Your task to perform on an android device: empty trash in google photos Image 0: 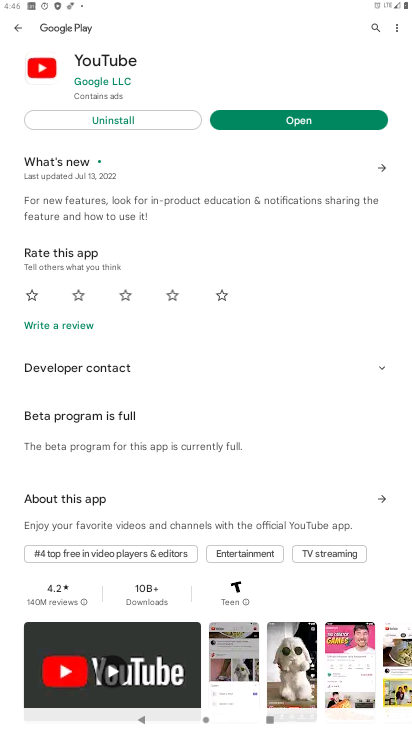
Step 0: press home button
Your task to perform on an android device: empty trash in google photos Image 1: 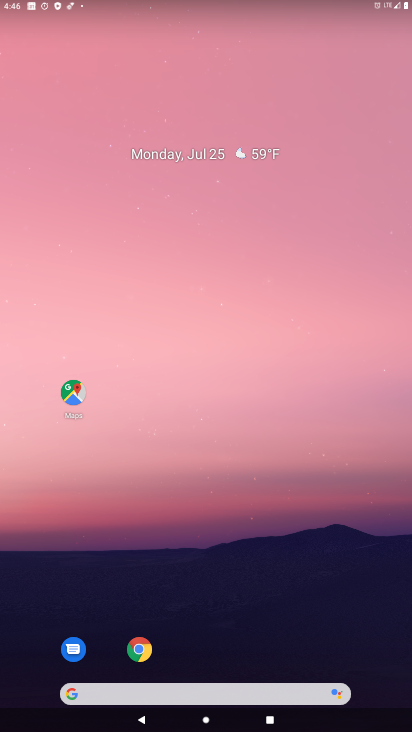
Step 1: drag from (256, 662) to (218, 3)
Your task to perform on an android device: empty trash in google photos Image 2: 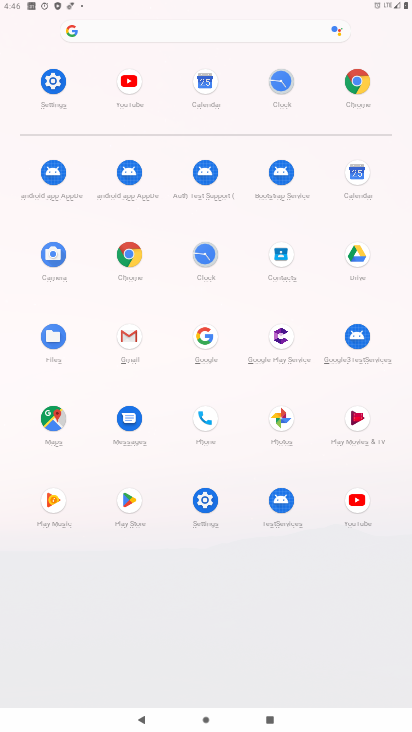
Step 2: click (285, 426)
Your task to perform on an android device: empty trash in google photos Image 3: 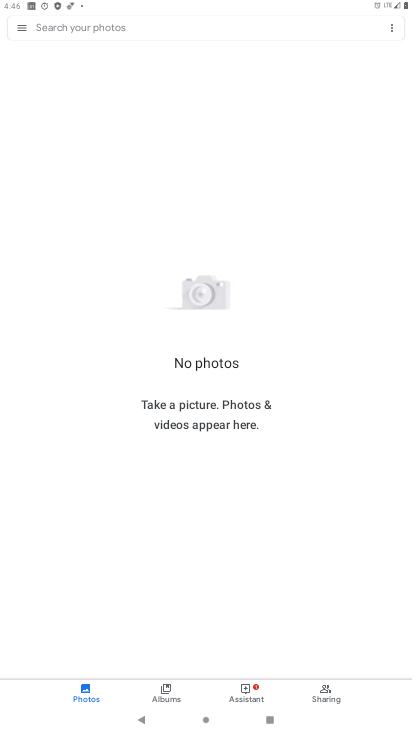
Step 3: click (23, 30)
Your task to perform on an android device: empty trash in google photos Image 4: 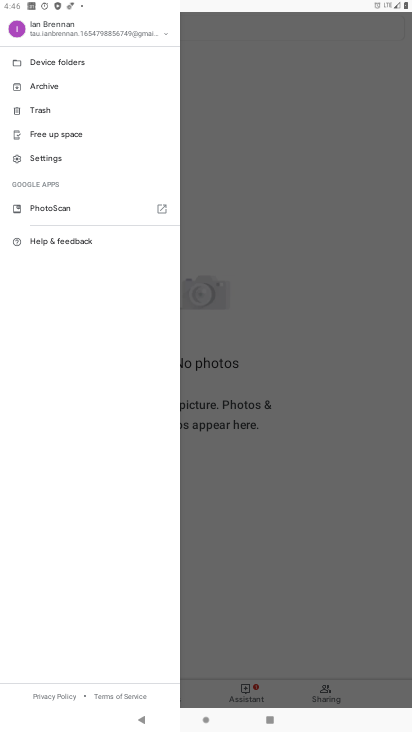
Step 4: click (49, 110)
Your task to perform on an android device: empty trash in google photos Image 5: 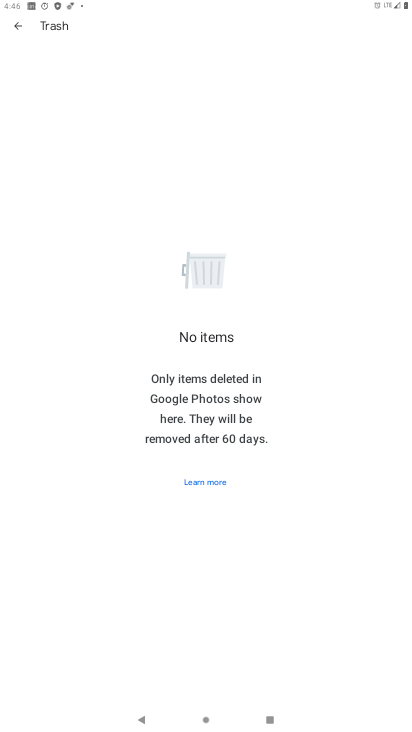
Step 5: task complete